Your task to perform on an android device: Open network settings Image 0: 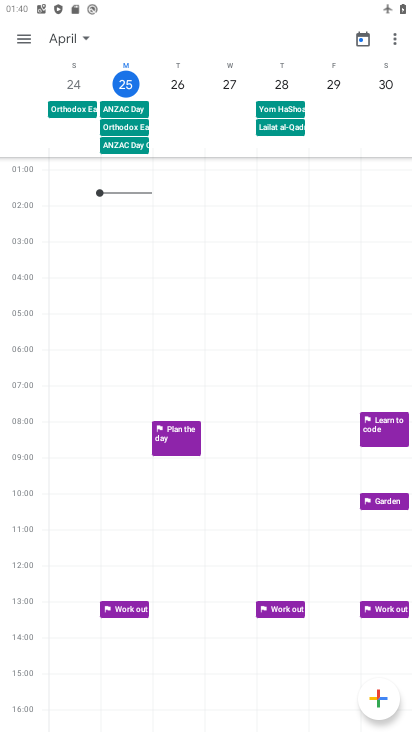
Step 0: press home button
Your task to perform on an android device: Open network settings Image 1: 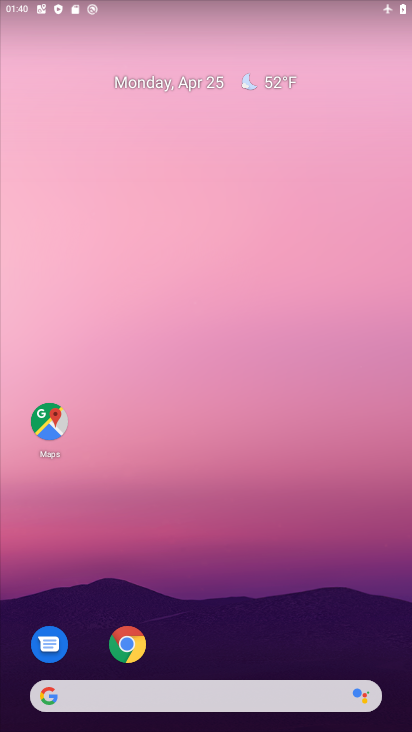
Step 1: drag from (235, 622) to (237, 135)
Your task to perform on an android device: Open network settings Image 2: 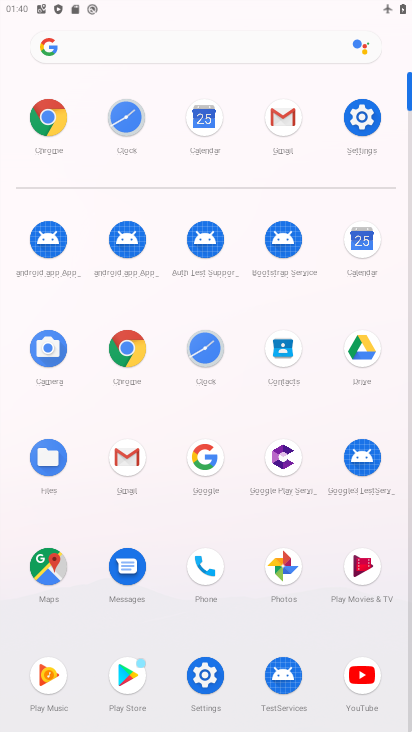
Step 2: click (361, 134)
Your task to perform on an android device: Open network settings Image 3: 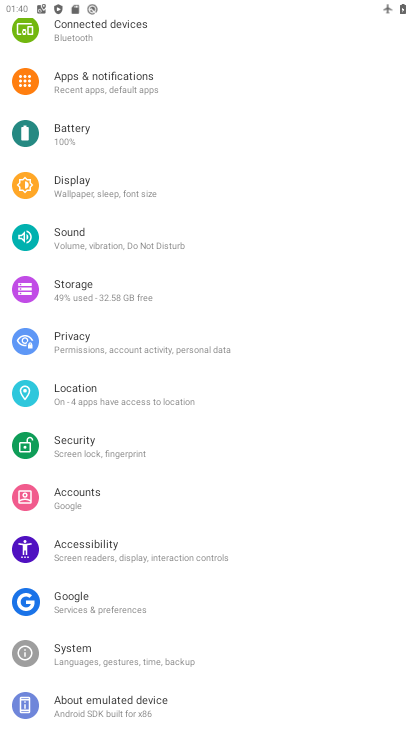
Step 3: drag from (228, 281) to (225, 605)
Your task to perform on an android device: Open network settings Image 4: 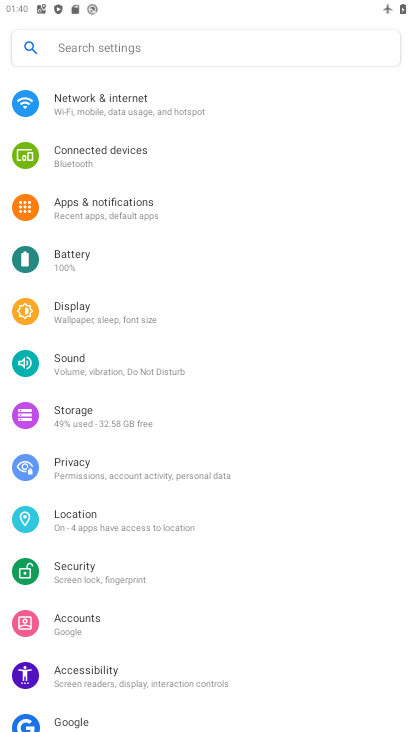
Step 4: click (174, 108)
Your task to perform on an android device: Open network settings Image 5: 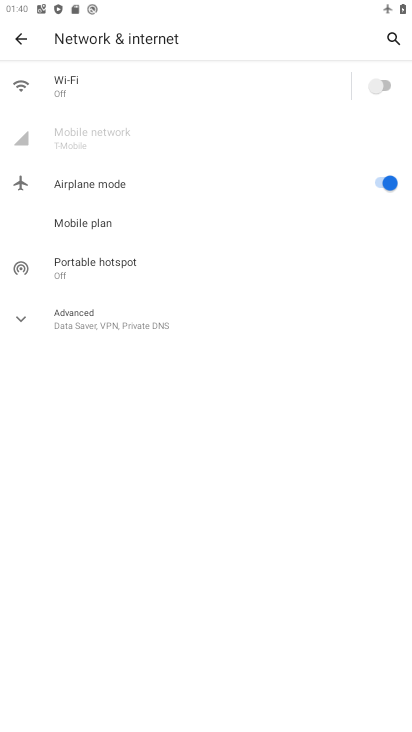
Step 5: task complete